Your task to perform on an android device: Open the stopwatch Image 0: 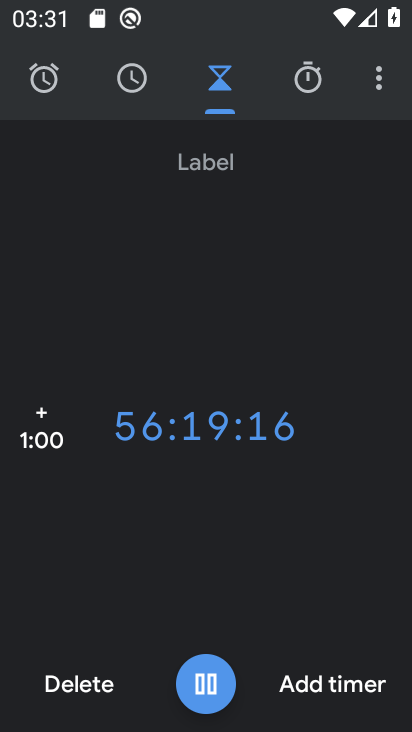
Step 0: click (311, 80)
Your task to perform on an android device: Open the stopwatch Image 1: 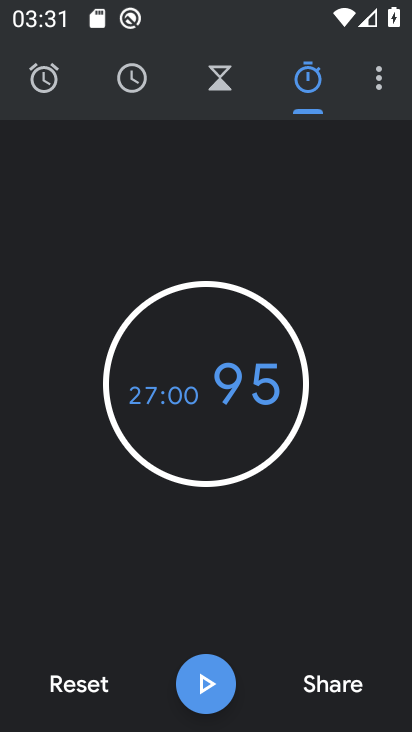
Step 1: click (200, 692)
Your task to perform on an android device: Open the stopwatch Image 2: 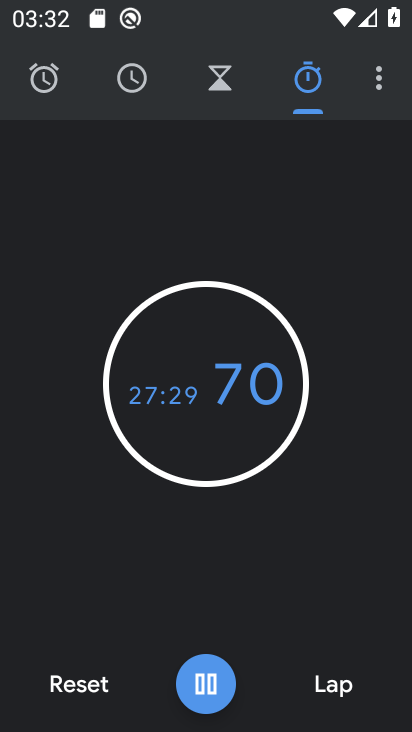
Step 2: task complete